Your task to perform on an android device: refresh tabs in the chrome app Image 0: 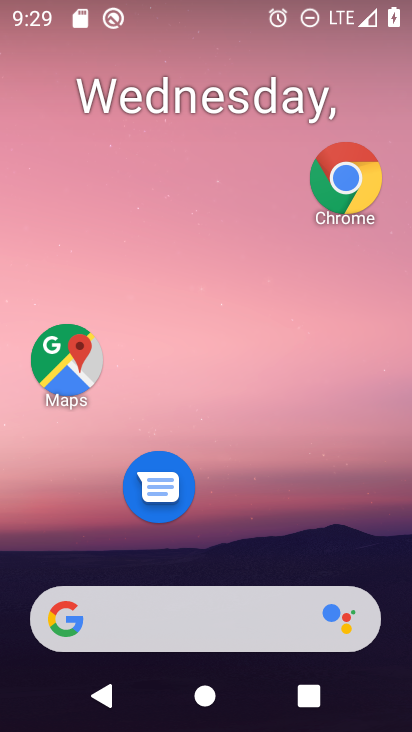
Step 0: drag from (272, 661) to (263, 128)
Your task to perform on an android device: refresh tabs in the chrome app Image 1: 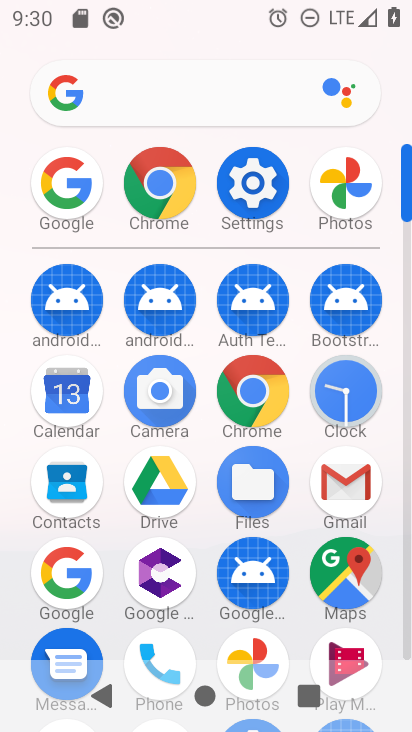
Step 1: click (173, 219)
Your task to perform on an android device: refresh tabs in the chrome app Image 2: 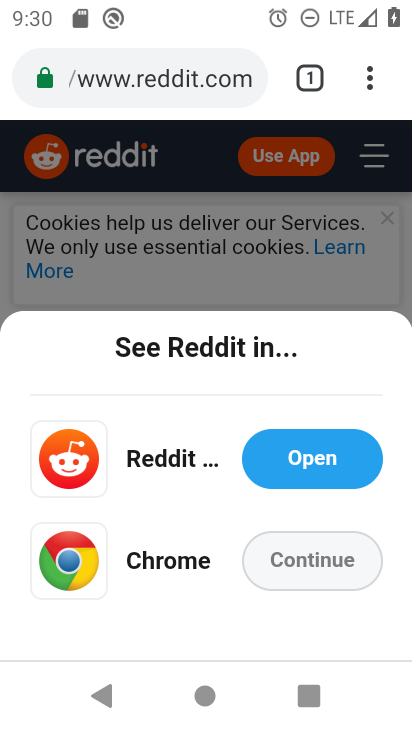
Step 2: click (376, 81)
Your task to perform on an android device: refresh tabs in the chrome app Image 3: 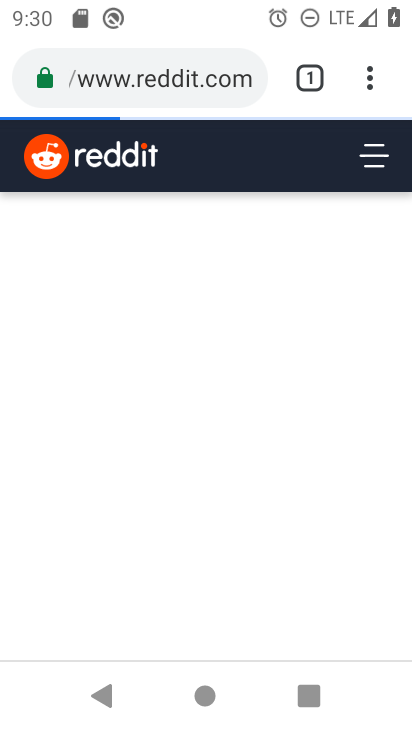
Step 3: click (377, 81)
Your task to perform on an android device: refresh tabs in the chrome app Image 4: 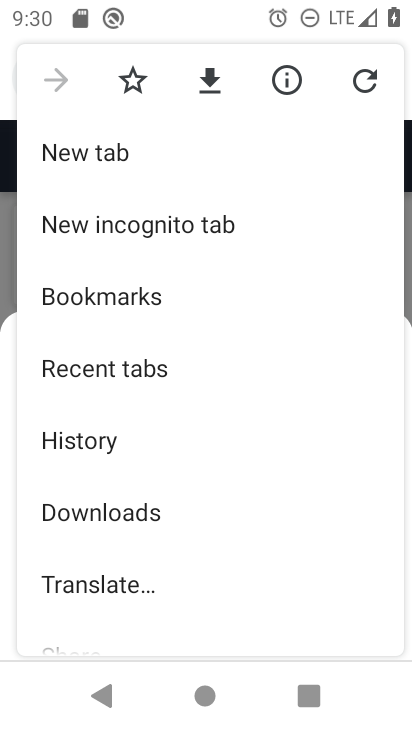
Step 4: task complete